Your task to perform on an android device: Go to Wikipedia Image 0: 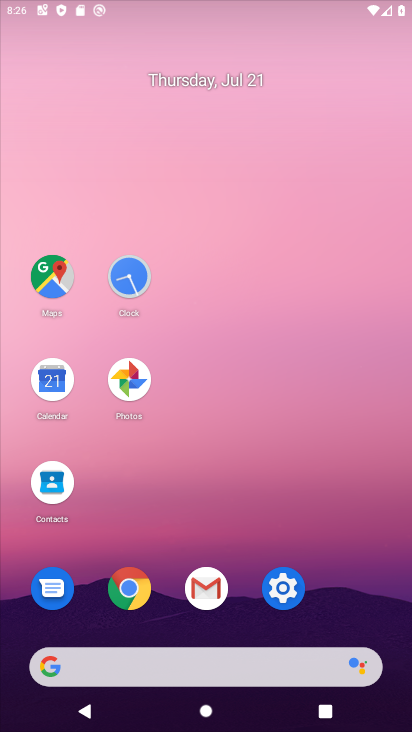
Step 0: click (136, 589)
Your task to perform on an android device: Go to Wikipedia Image 1: 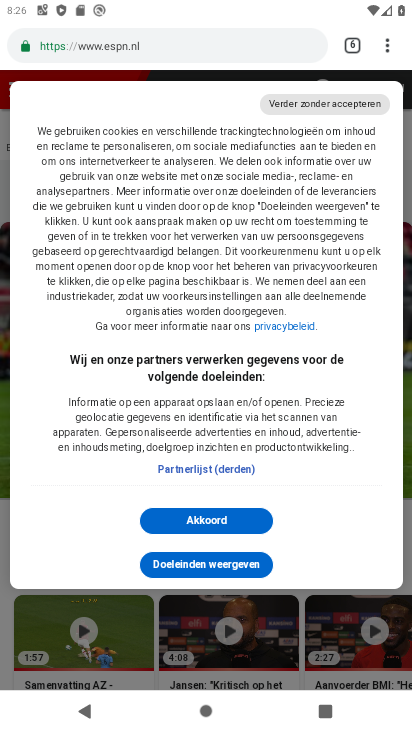
Step 1: click (387, 48)
Your task to perform on an android device: Go to Wikipedia Image 2: 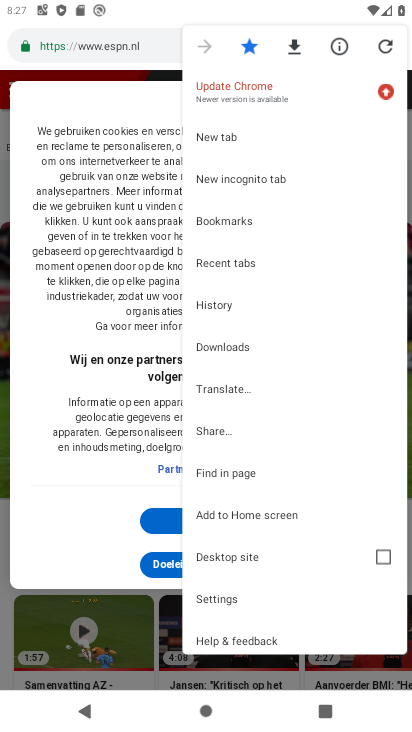
Step 2: click (229, 129)
Your task to perform on an android device: Go to Wikipedia Image 3: 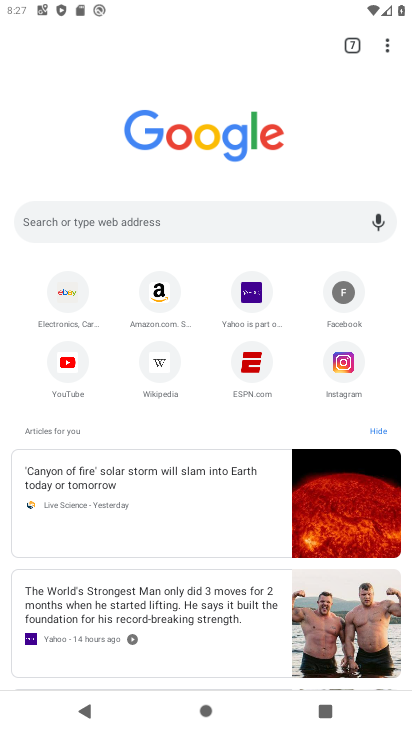
Step 3: click (159, 359)
Your task to perform on an android device: Go to Wikipedia Image 4: 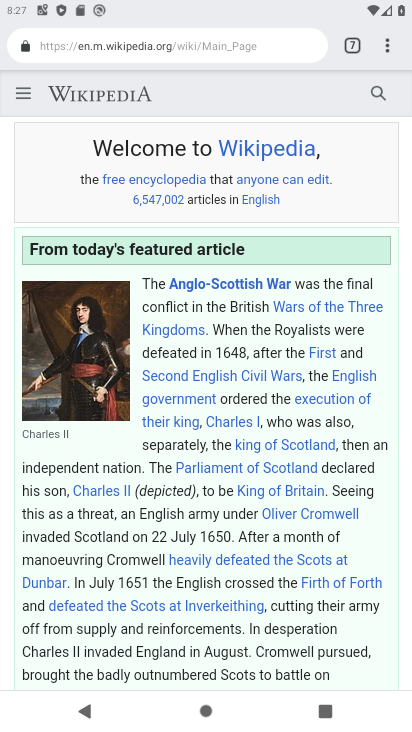
Step 4: task complete